Your task to perform on an android device: Open the phone app and click the voicemail tab. Image 0: 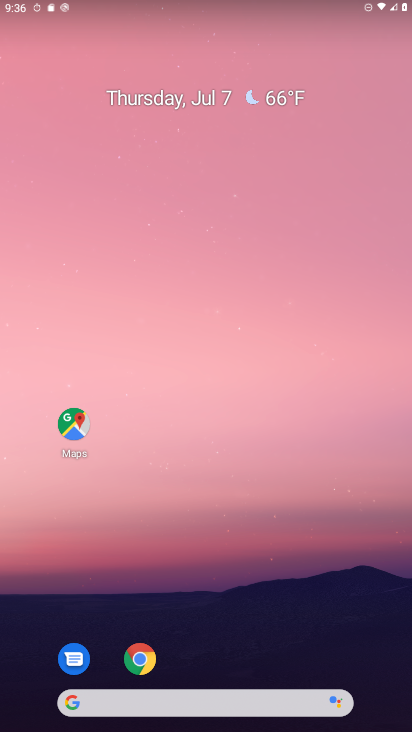
Step 0: drag from (390, 679) to (297, 31)
Your task to perform on an android device: Open the phone app and click the voicemail tab. Image 1: 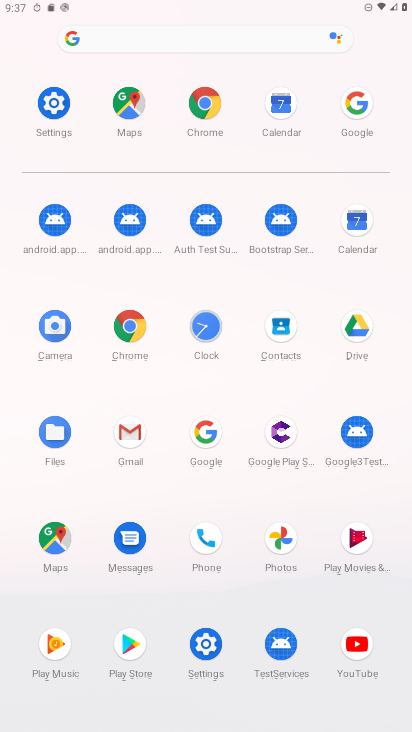
Step 1: click (203, 533)
Your task to perform on an android device: Open the phone app and click the voicemail tab. Image 2: 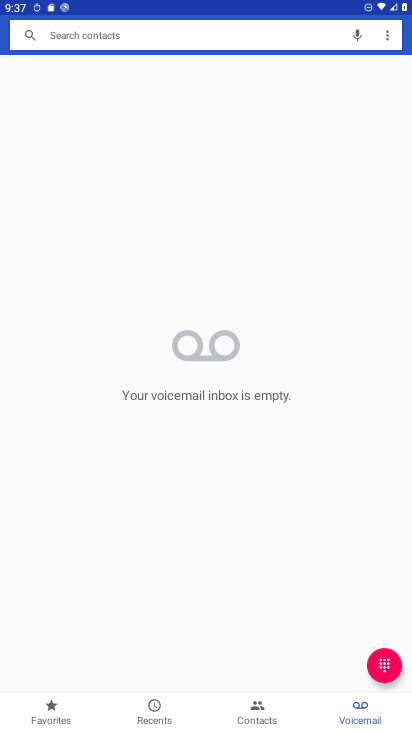
Step 2: task complete